Your task to perform on an android device: Open the phone app and click the voicemail tab. Image 0: 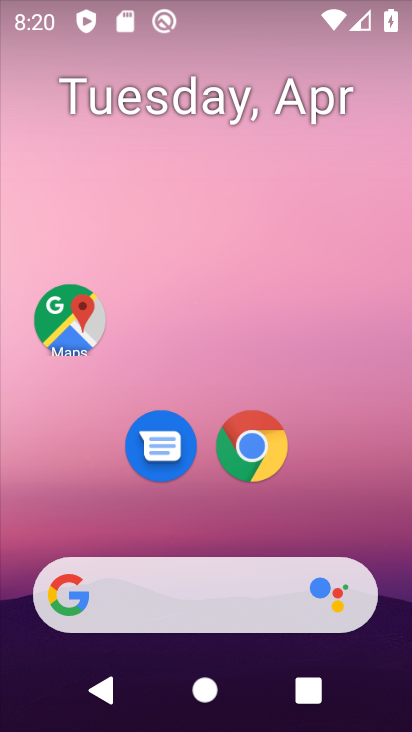
Step 0: drag from (336, 401) to (299, 99)
Your task to perform on an android device: Open the phone app and click the voicemail tab. Image 1: 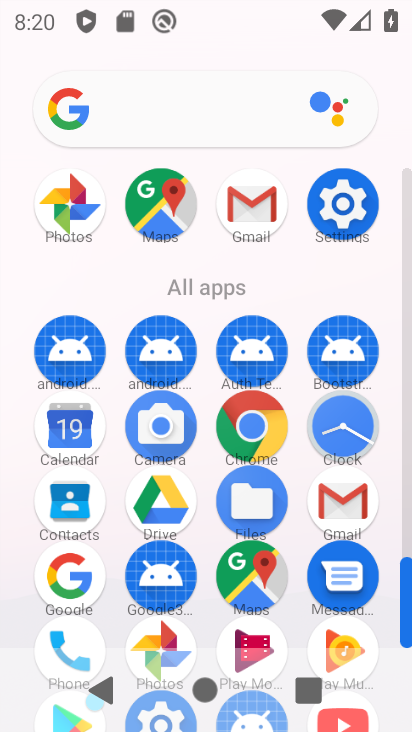
Step 1: click (59, 638)
Your task to perform on an android device: Open the phone app and click the voicemail tab. Image 2: 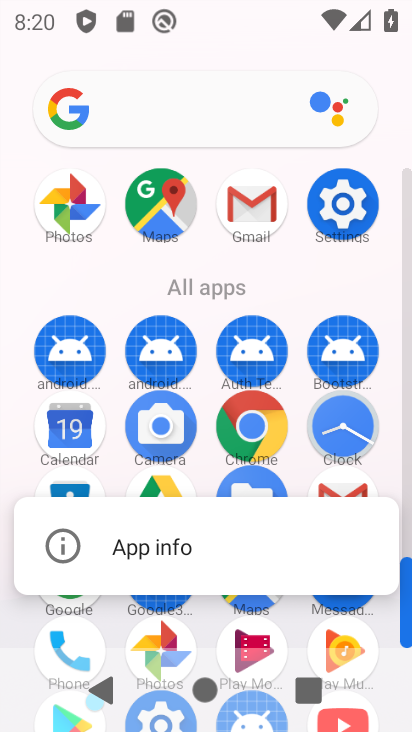
Step 2: click (63, 635)
Your task to perform on an android device: Open the phone app and click the voicemail tab. Image 3: 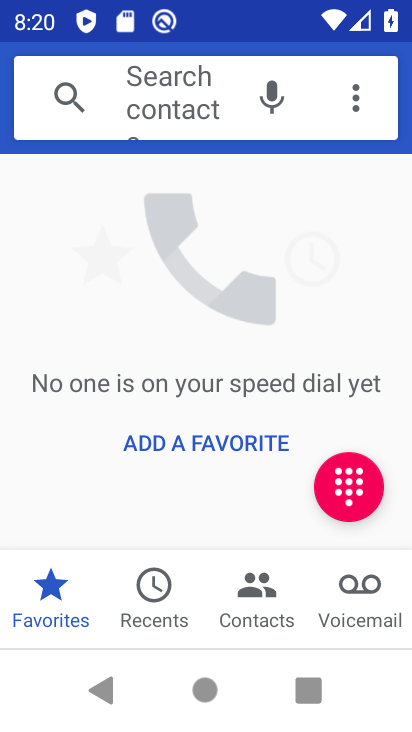
Step 3: click (361, 596)
Your task to perform on an android device: Open the phone app and click the voicemail tab. Image 4: 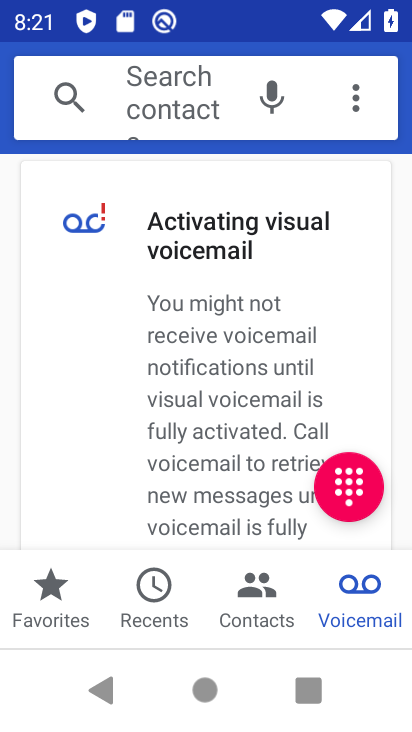
Step 4: task complete